Your task to perform on an android device: turn pop-ups on in chrome Image 0: 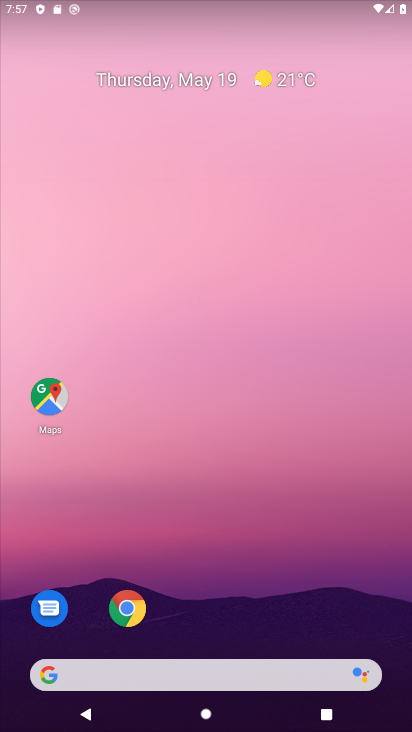
Step 0: click (129, 600)
Your task to perform on an android device: turn pop-ups on in chrome Image 1: 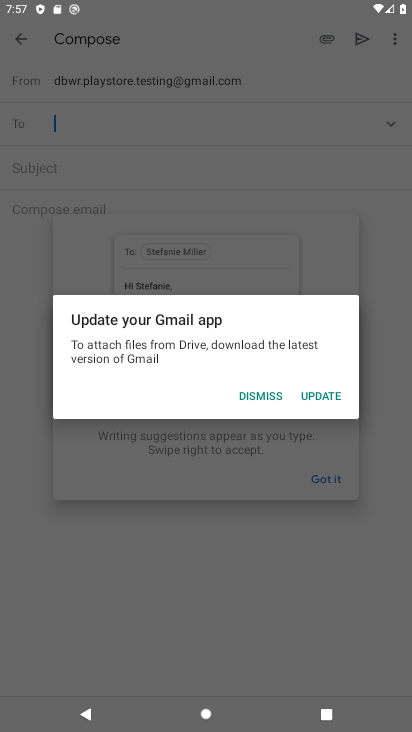
Step 1: press home button
Your task to perform on an android device: turn pop-ups on in chrome Image 2: 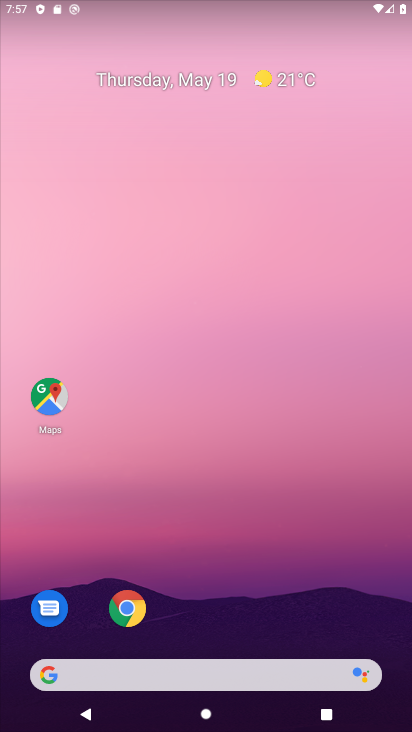
Step 2: click (127, 598)
Your task to perform on an android device: turn pop-ups on in chrome Image 3: 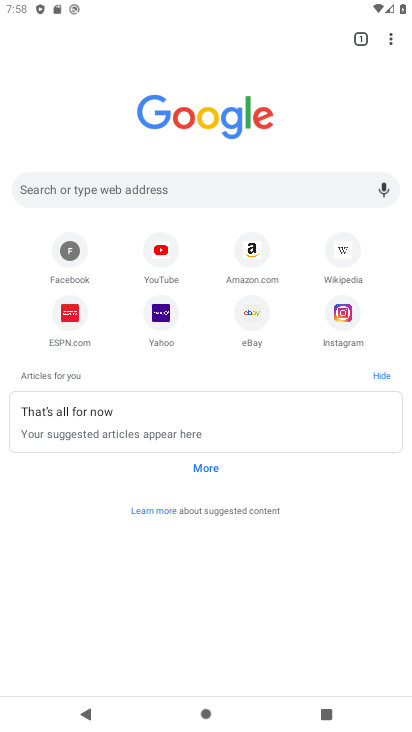
Step 3: click (392, 36)
Your task to perform on an android device: turn pop-ups on in chrome Image 4: 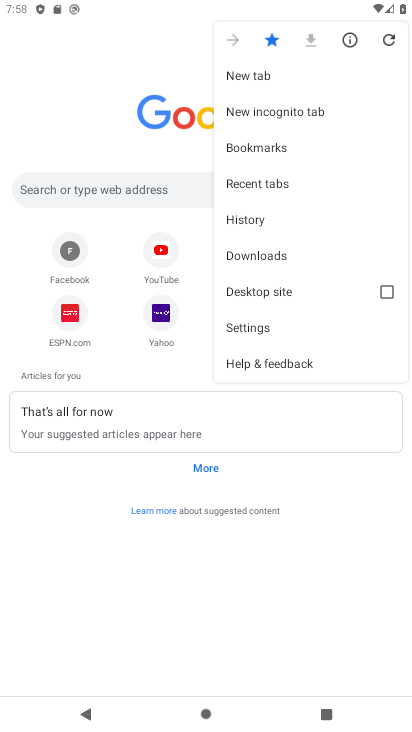
Step 4: click (235, 324)
Your task to perform on an android device: turn pop-ups on in chrome Image 5: 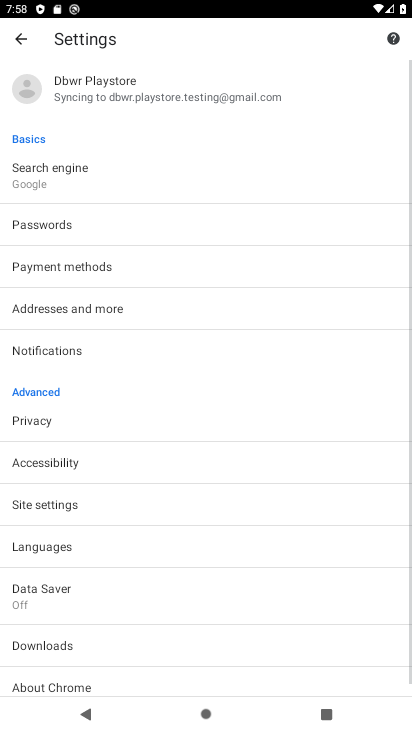
Step 5: drag from (211, 555) to (159, 187)
Your task to perform on an android device: turn pop-ups on in chrome Image 6: 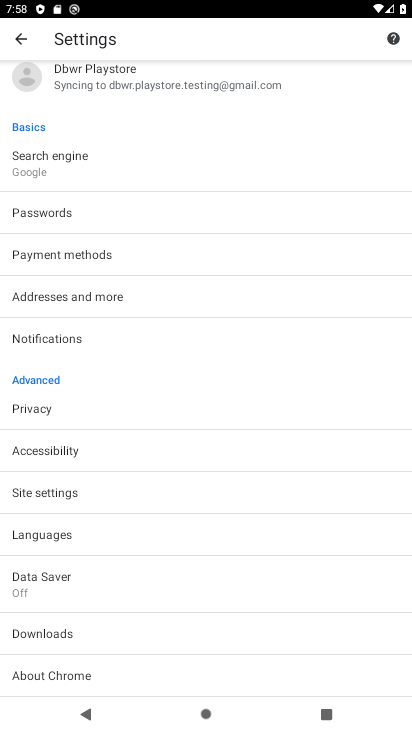
Step 6: click (68, 495)
Your task to perform on an android device: turn pop-ups on in chrome Image 7: 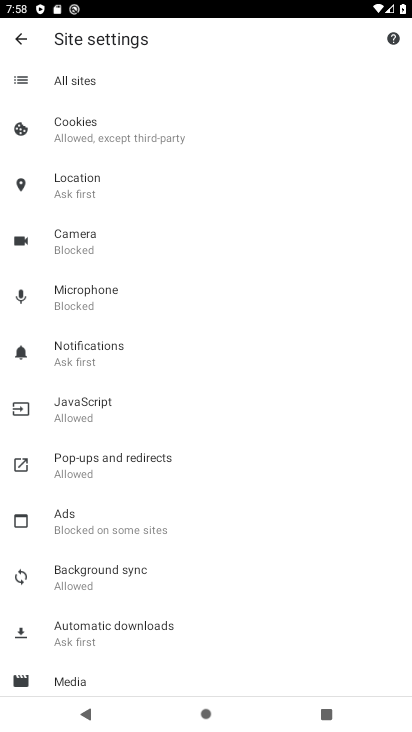
Step 7: click (102, 457)
Your task to perform on an android device: turn pop-ups on in chrome Image 8: 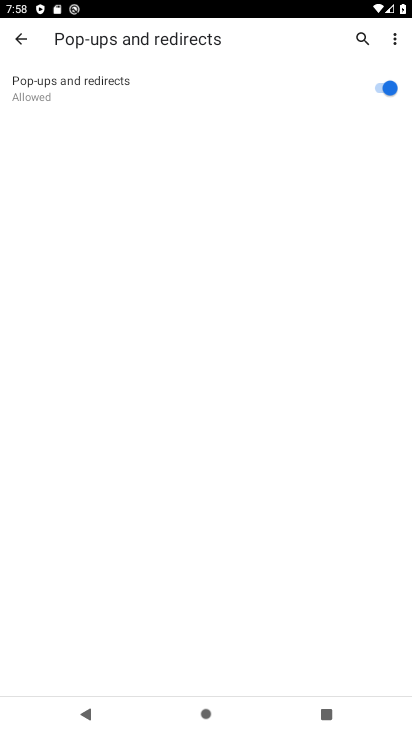
Step 8: task complete